Your task to perform on an android device: toggle data saver in the chrome app Image 0: 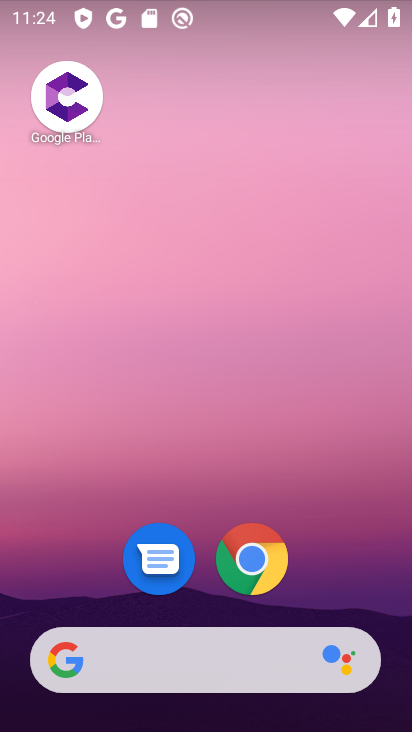
Step 0: click (263, 552)
Your task to perform on an android device: toggle data saver in the chrome app Image 1: 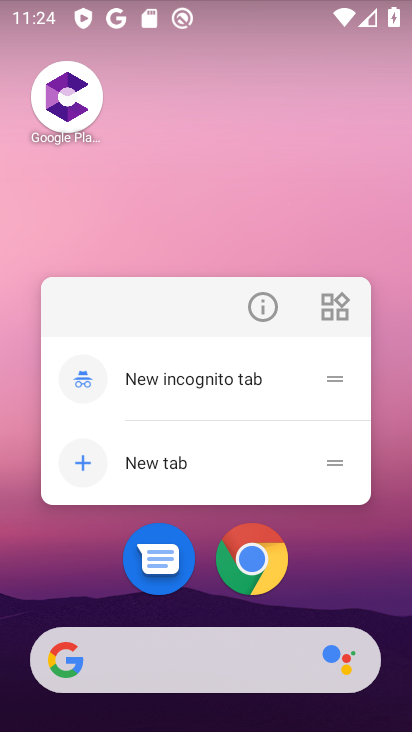
Step 1: click (265, 551)
Your task to perform on an android device: toggle data saver in the chrome app Image 2: 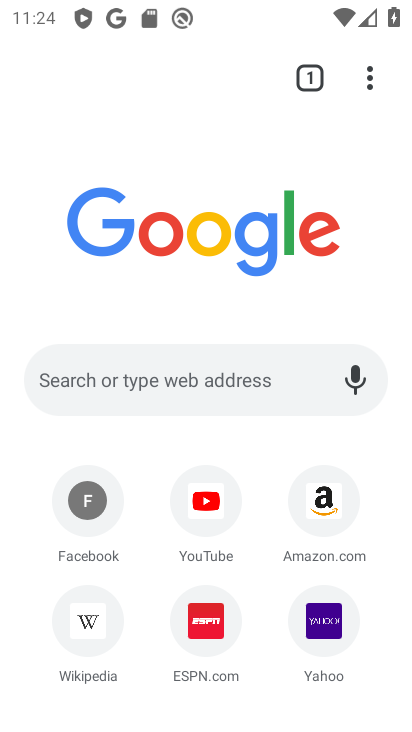
Step 2: drag from (370, 69) to (107, 632)
Your task to perform on an android device: toggle data saver in the chrome app Image 3: 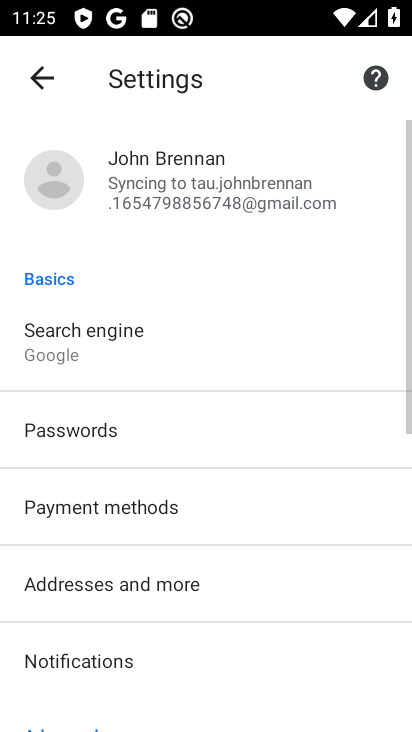
Step 3: drag from (144, 651) to (306, 211)
Your task to perform on an android device: toggle data saver in the chrome app Image 4: 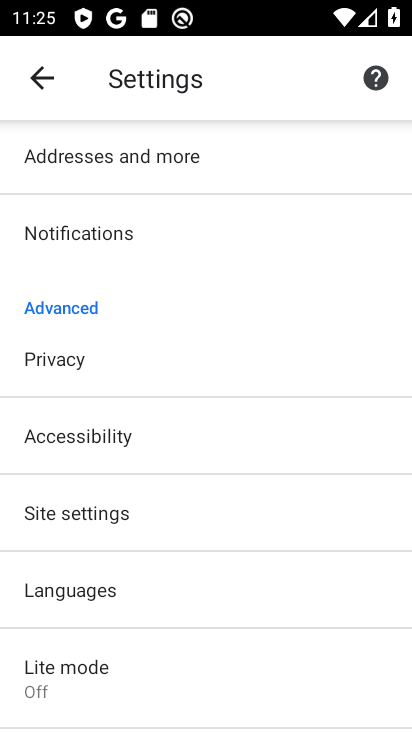
Step 4: click (90, 656)
Your task to perform on an android device: toggle data saver in the chrome app Image 5: 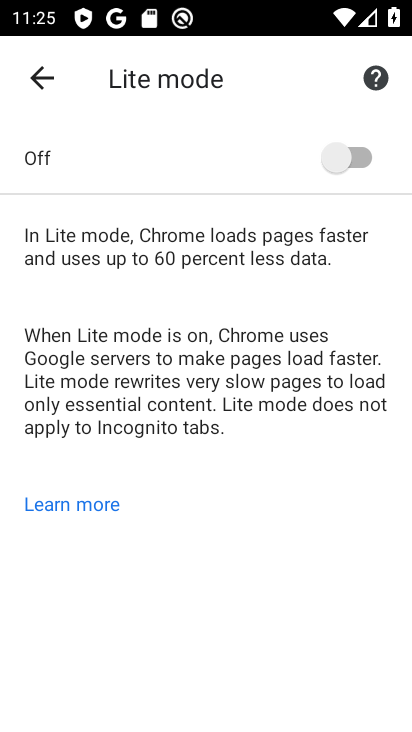
Step 5: click (338, 160)
Your task to perform on an android device: toggle data saver in the chrome app Image 6: 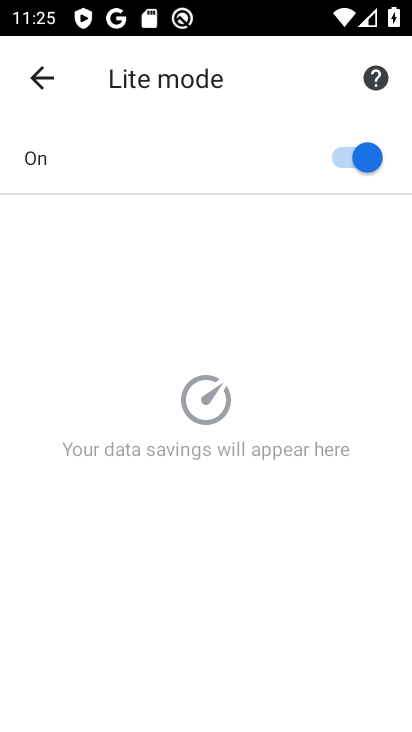
Step 6: task complete